Your task to perform on an android device: open app "Messenger Lite" (install if not already installed) Image 0: 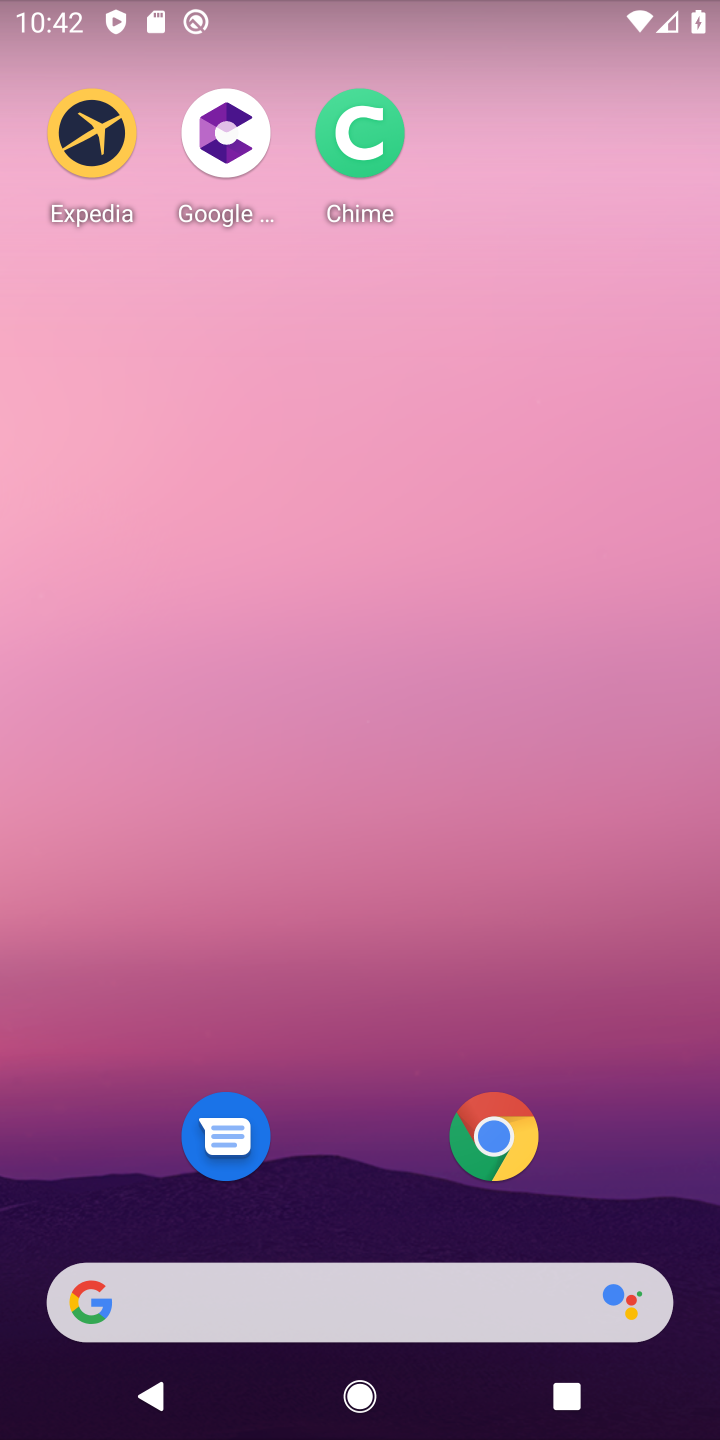
Step 0: drag from (319, 986) to (583, 865)
Your task to perform on an android device: open app "Messenger Lite" (install if not already installed) Image 1: 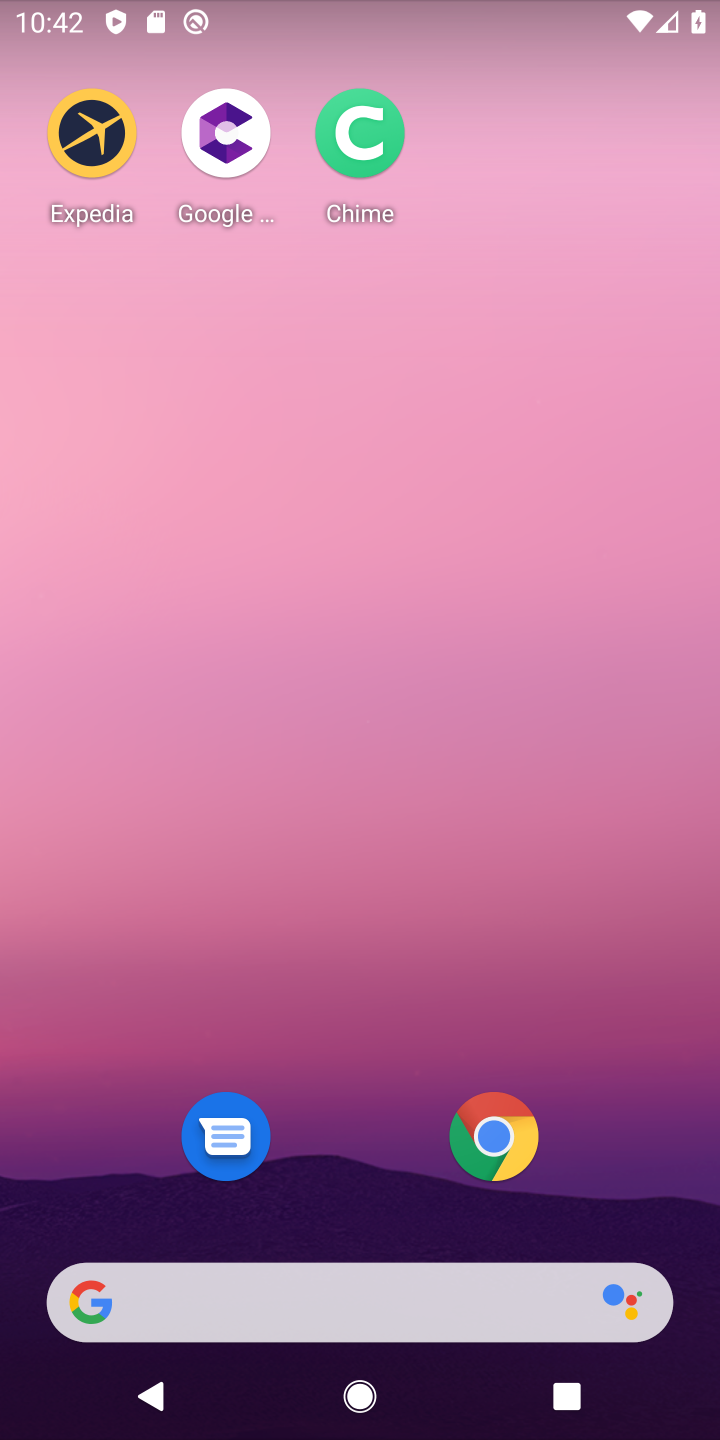
Step 1: drag from (328, 1218) to (334, 315)
Your task to perform on an android device: open app "Messenger Lite" (install if not already installed) Image 2: 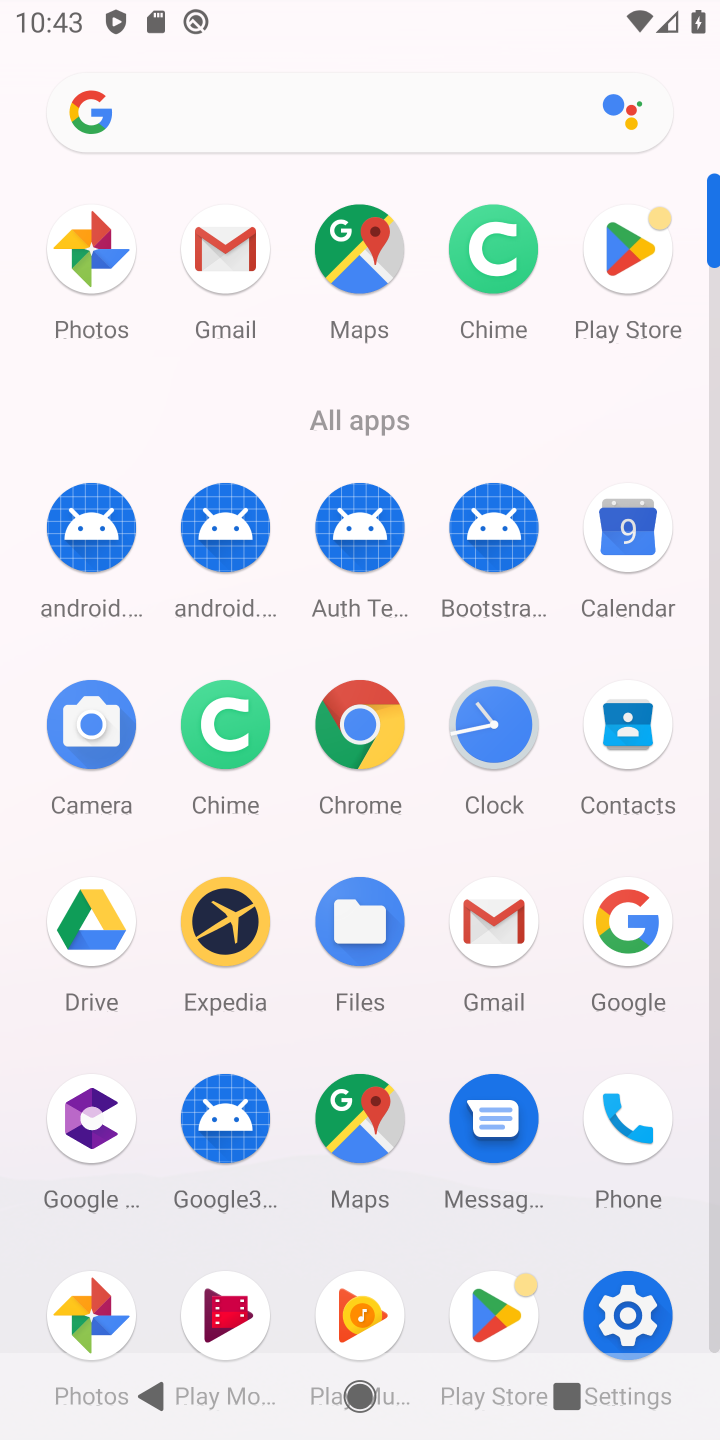
Step 2: click (508, 1319)
Your task to perform on an android device: open app "Messenger Lite" (install if not already installed) Image 3: 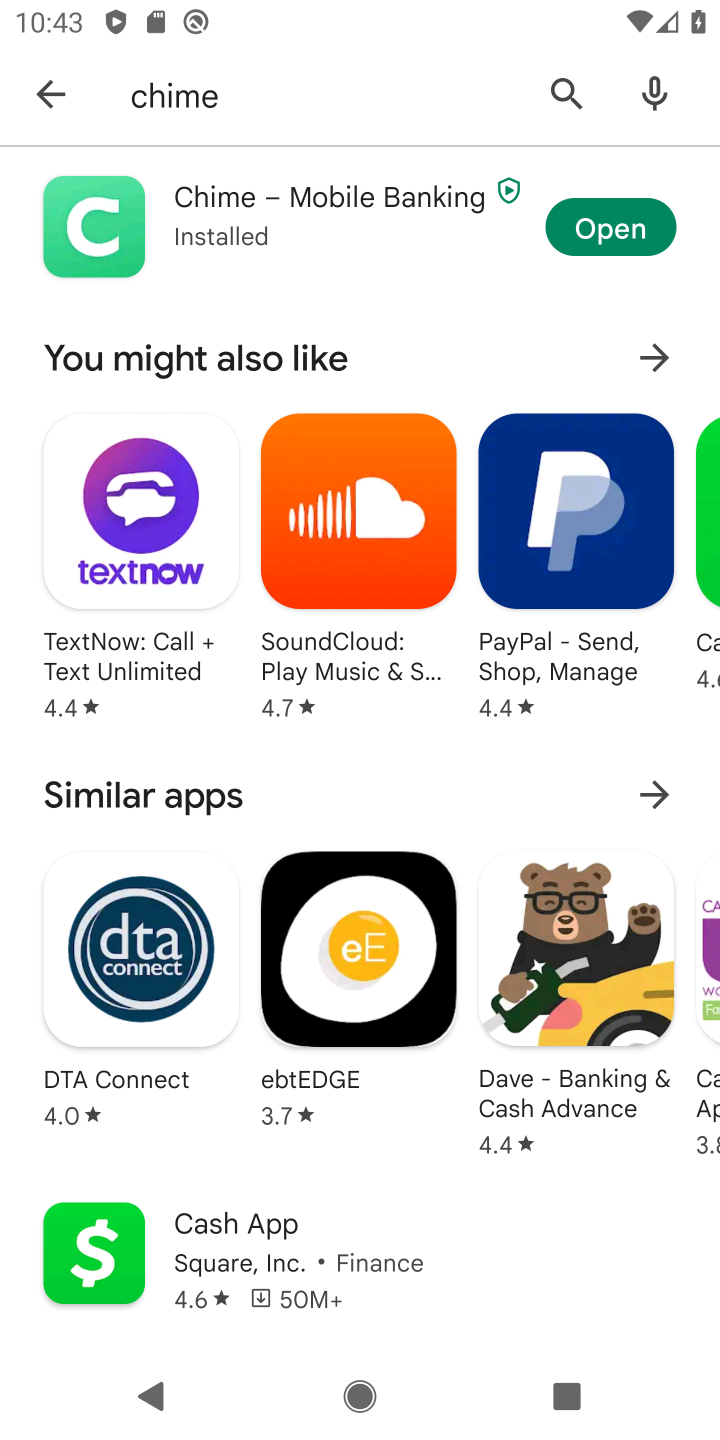
Step 3: click (250, 105)
Your task to perform on an android device: open app "Messenger Lite" (install if not already installed) Image 4: 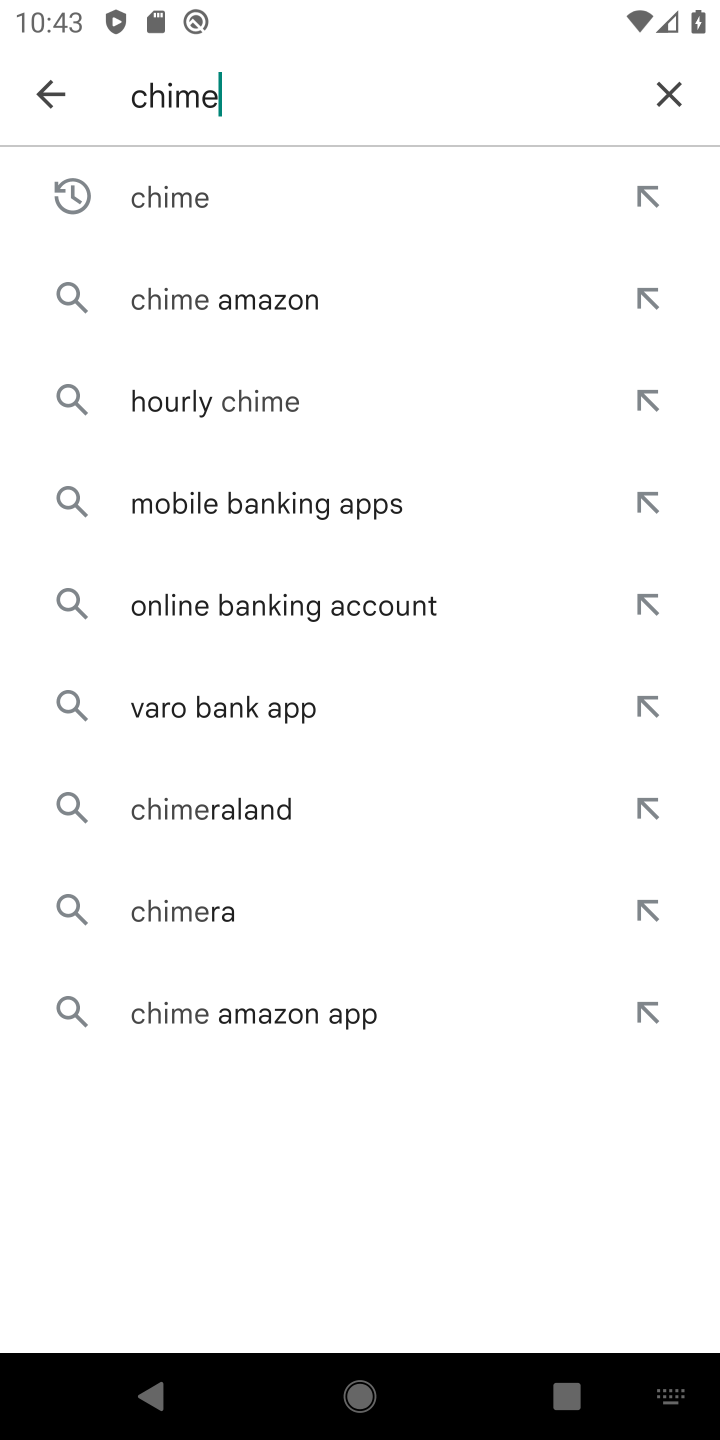
Step 4: click (664, 111)
Your task to perform on an android device: open app "Messenger Lite" (install if not already installed) Image 5: 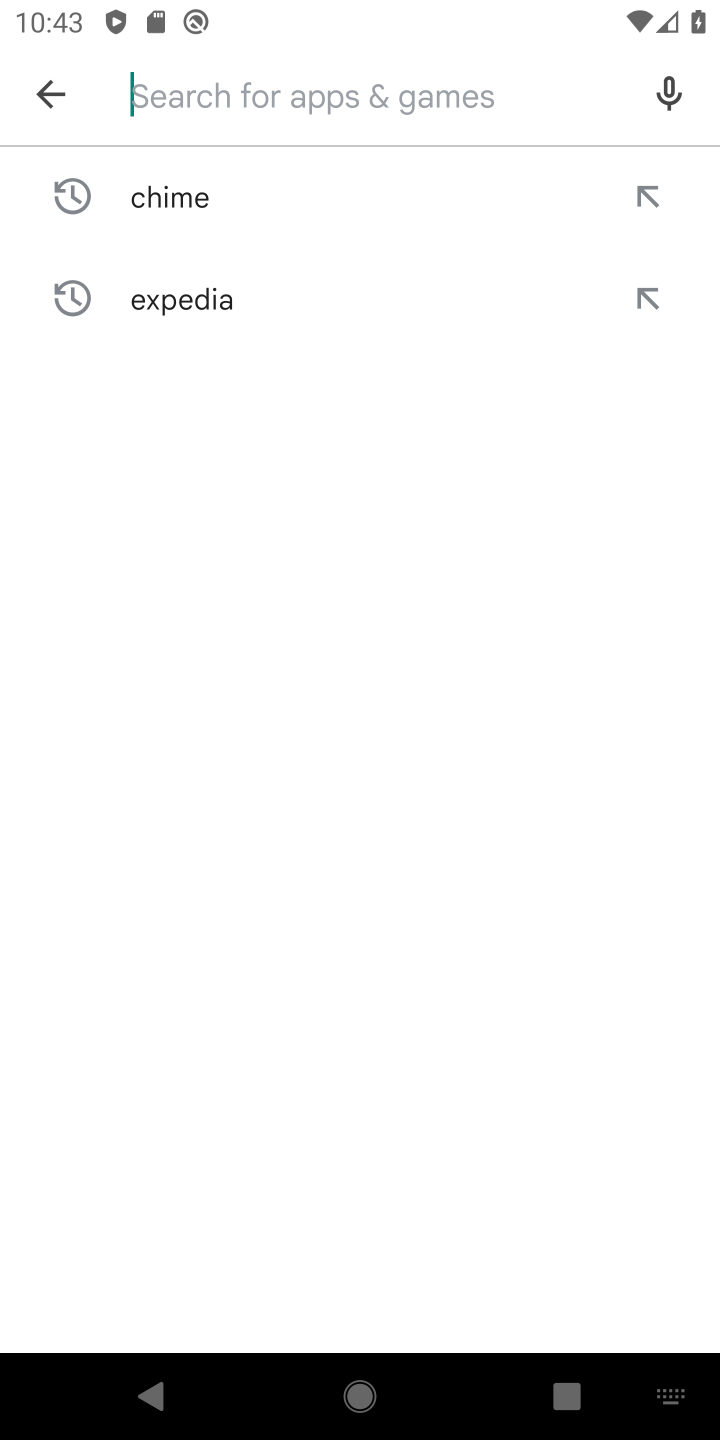
Step 5: type "messenger lite"
Your task to perform on an android device: open app "Messenger Lite" (install if not already installed) Image 6: 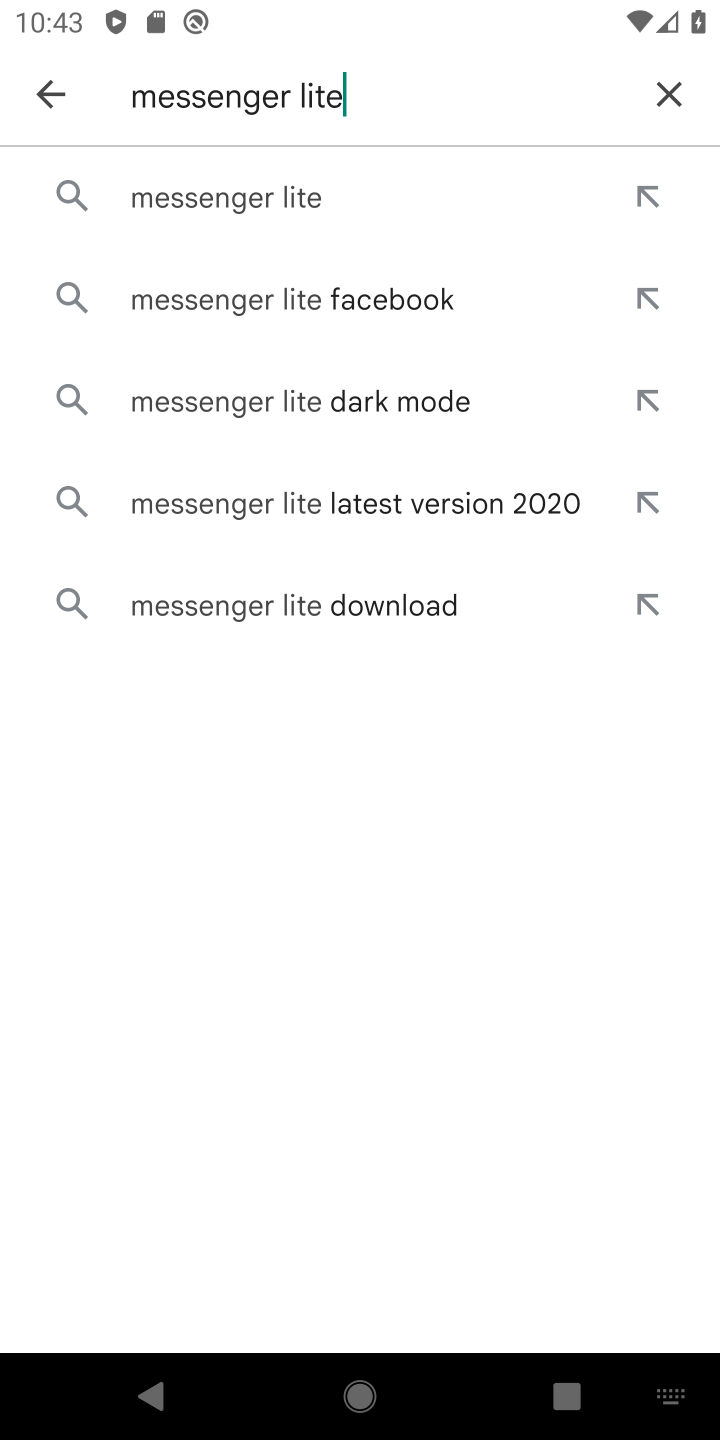
Step 6: click (330, 190)
Your task to perform on an android device: open app "Messenger Lite" (install if not already installed) Image 7: 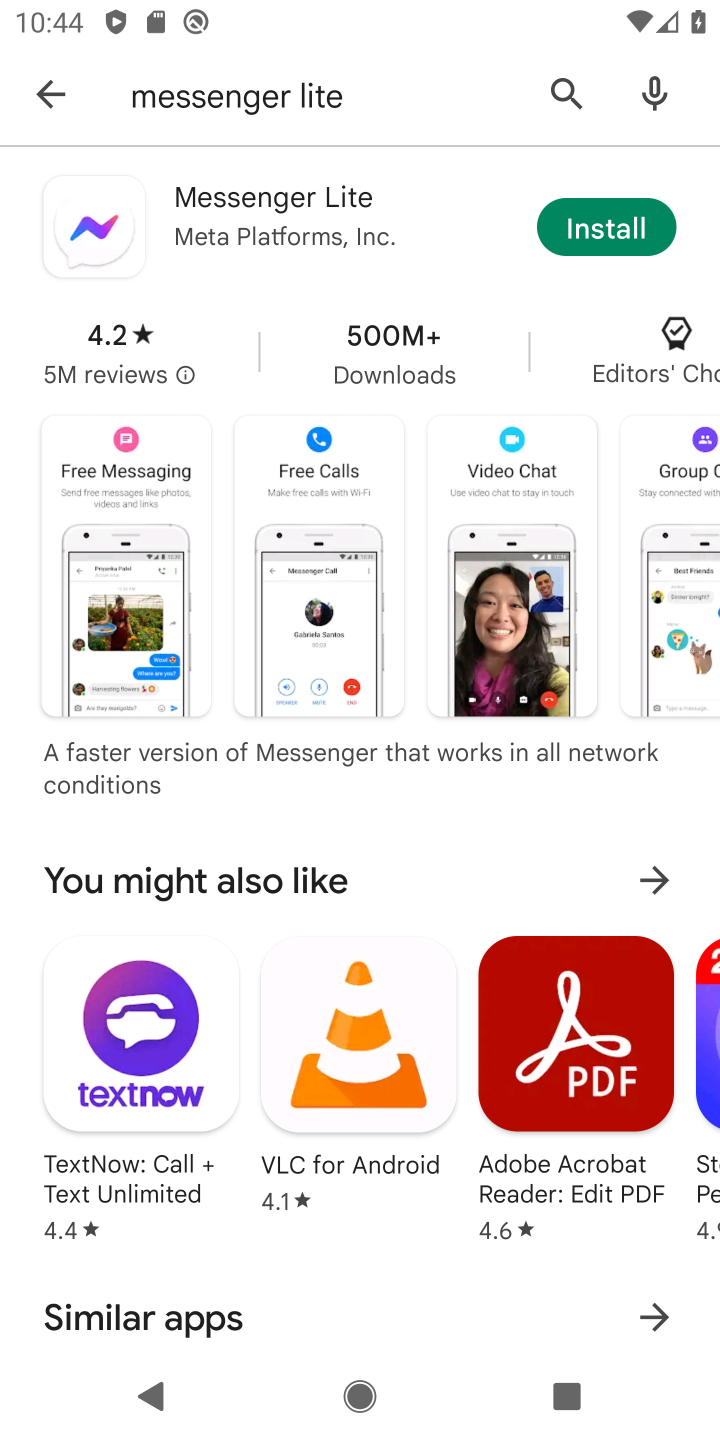
Step 7: click (625, 244)
Your task to perform on an android device: open app "Messenger Lite" (install if not already installed) Image 8: 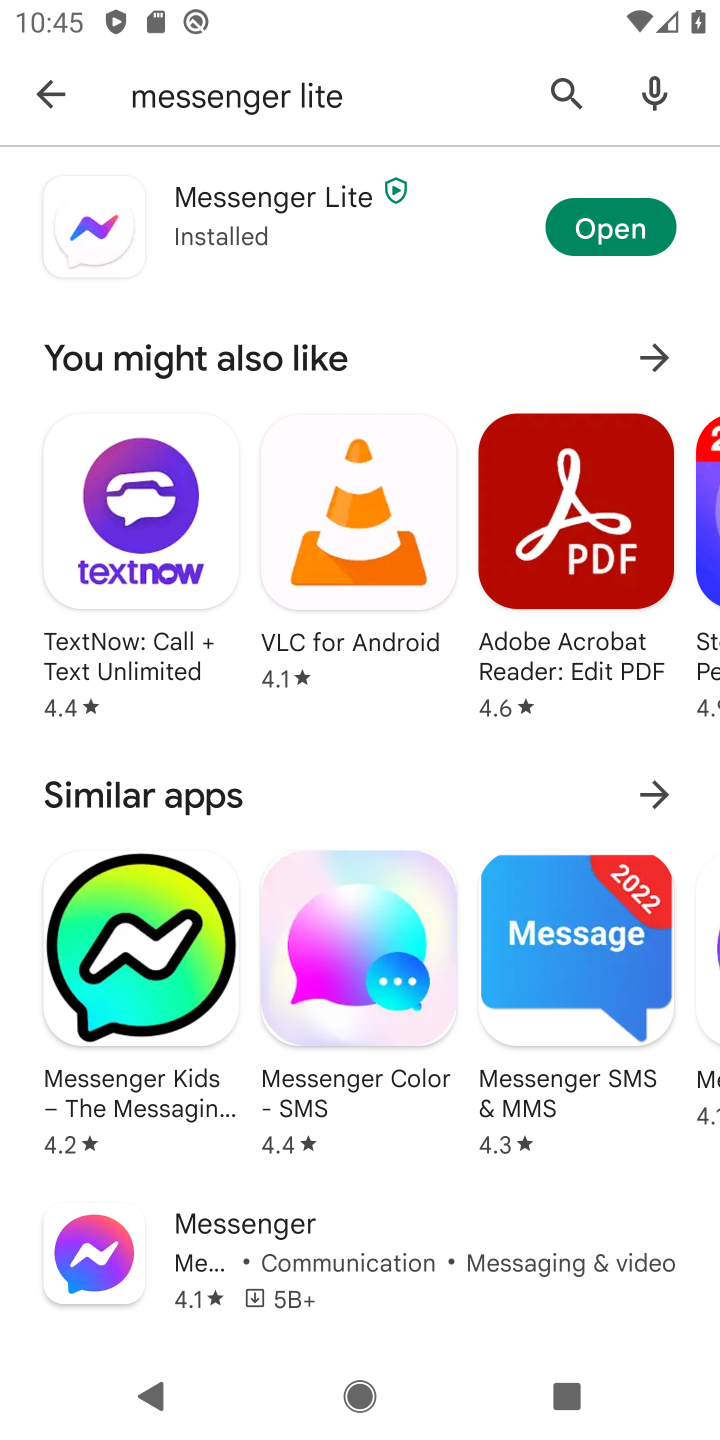
Step 8: click (601, 223)
Your task to perform on an android device: open app "Messenger Lite" (install if not already installed) Image 9: 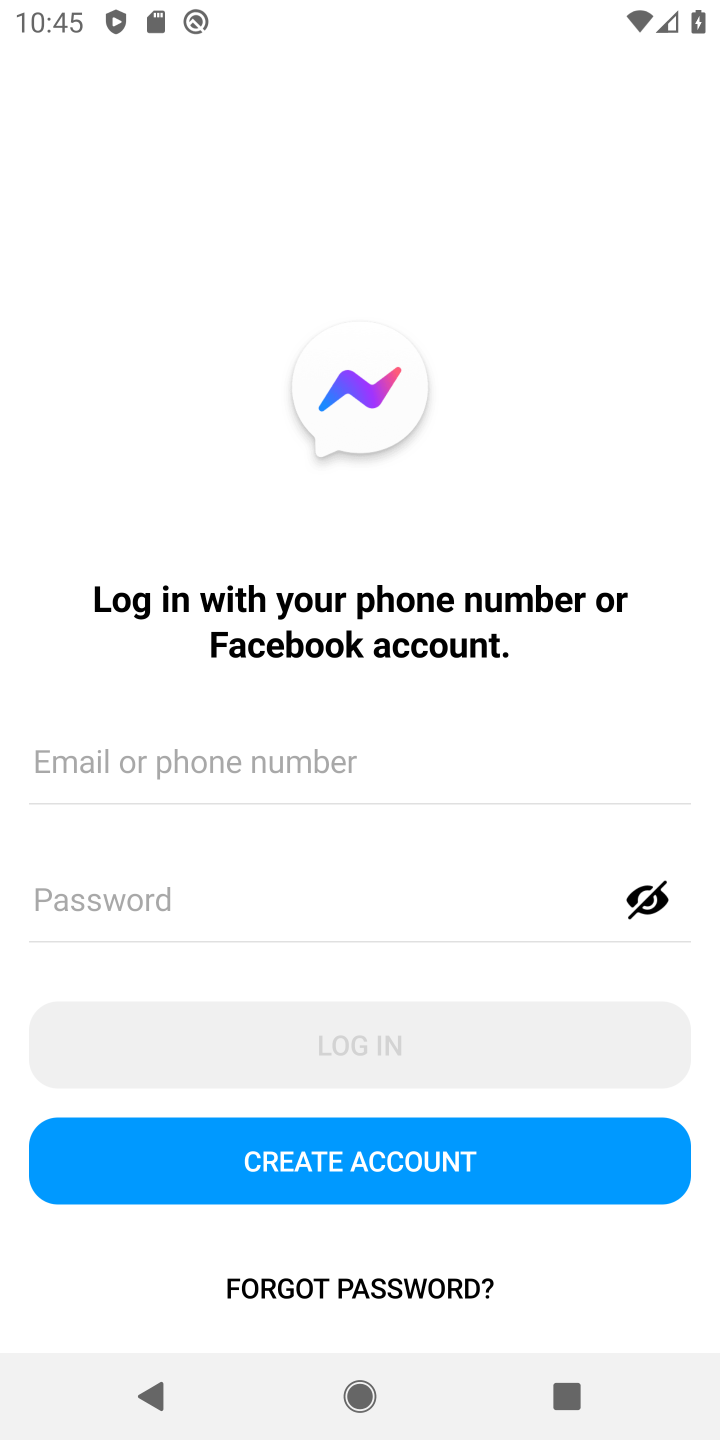
Step 9: task complete